Your task to perform on an android device: Go to wifi settings Image 0: 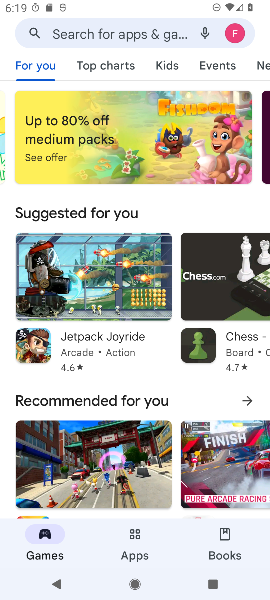
Step 0: press home button
Your task to perform on an android device: Go to wifi settings Image 1: 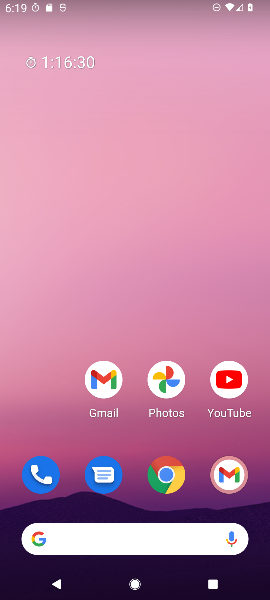
Step 1: drag from (63, 444) to (59, 160)
Your task to perform on an android device: Go to wifi settings Image 2: 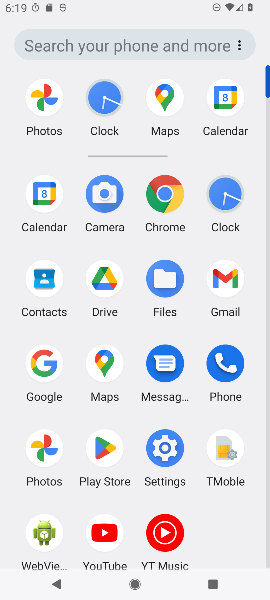
Step 2: click (164, 448)
Your task to perform on an android device: Go to wifi settings Image 3: 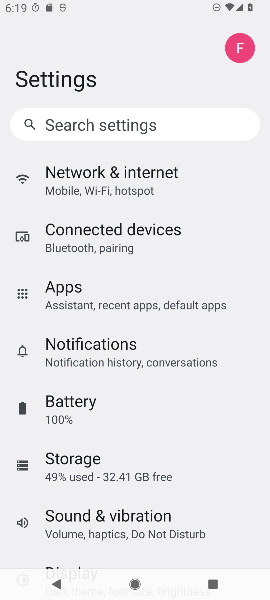
Step 3: drag from (230, 436) to (231, 341)
Your task to perform on an android device: Go to wifi settings Image 4: 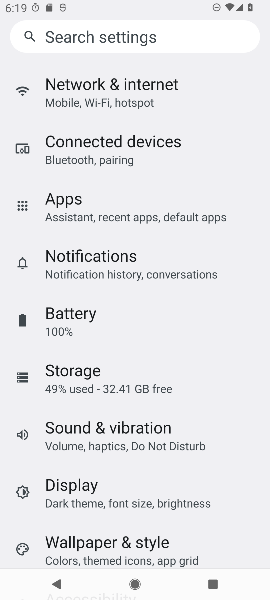
Step 4: drag from (218, 465) to (227, 403)
Your task to perform on an android device: Go to wifi settings Image 5: 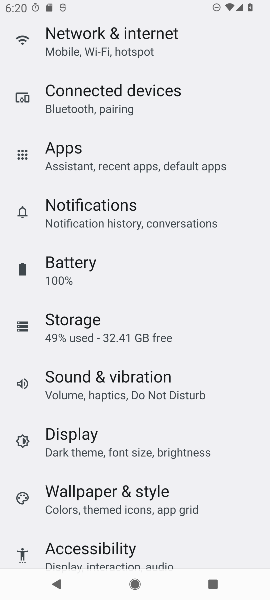
Step 5: drag from (224, 491) to (229, 416)
Your task to perform on an android device: Go to wifi settings Image 6: 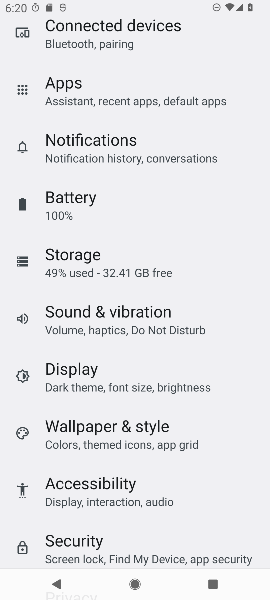
Step 6: drag from (231, 488) to (238, 391)
Your task to perform on an android device: Go to wifi settings Image 7: 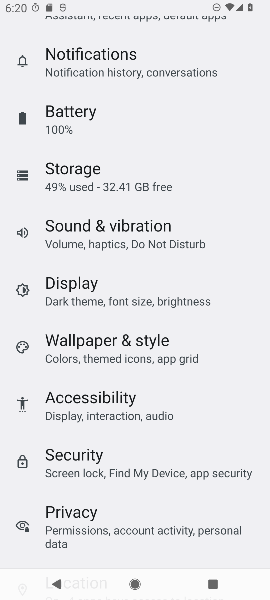
Step 7: drag from (208, 391) to (216, 331)
Your task to perform on an android device: Go to wifi settings Image 8: 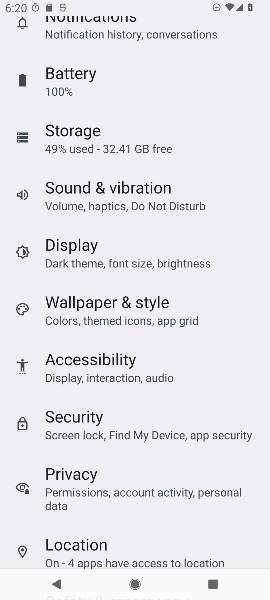
Step 8: drag from (221, 461) to (227, 342)
Your task to perform on an android device: Go to wifi settings Image 9: 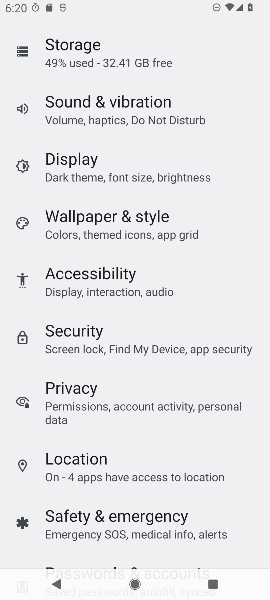
Step 9: drag from (237, 218) to (236, 296)
Your task to perform on an android device: Go to wifi settings Image 10: 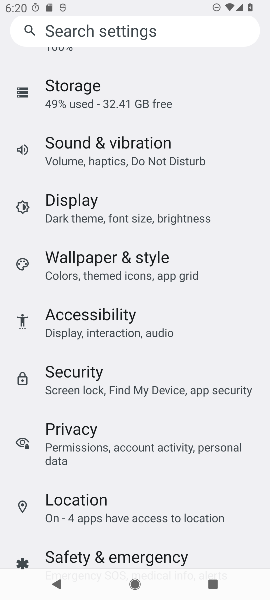
Step 10: drag from (233, 204) to (237, 326)
Your task to perform on an android device: Go to wifi settings Image 11: 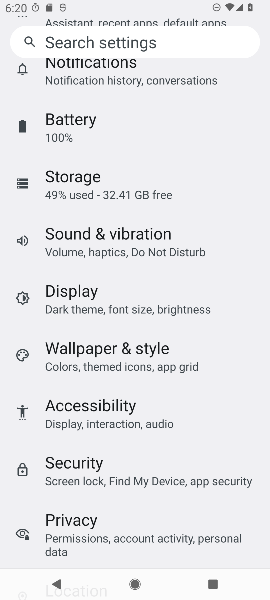
Step 11: drag from (239, 192) to (246, 452)
Your task to perform on an android device: Go to wifi settings Image 12: 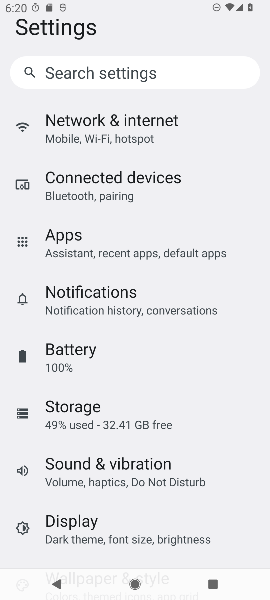
Step 12: drag from (229, 185) to (232, 371)
Your task to perform on an android device: Go to wifi settings Image 13: 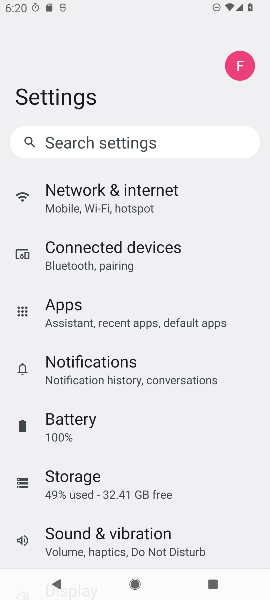
Step 13: click (154, 212)
Your task to perform on an android device: Go to wifi settings Image 14: 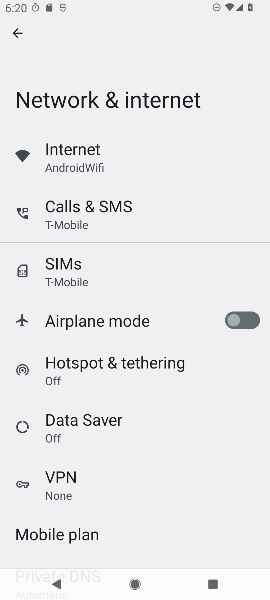
Step 14: click (75, 156)
Your task to perform on an android device: Go to wifi settings Image 15: 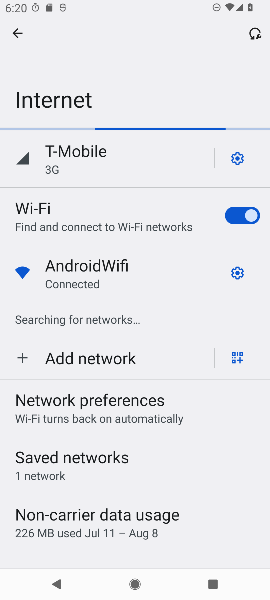
Step 15: task complete